Your task to perform on an android device: change the upload size in google photos Image 0: 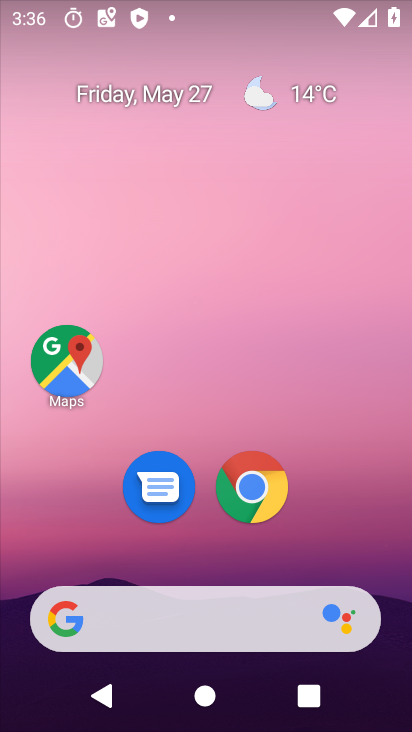
Step 0: drag from (344, 364) to (284, 10)
Your task to perform on an android device: change the upload size in google photos Image 1: 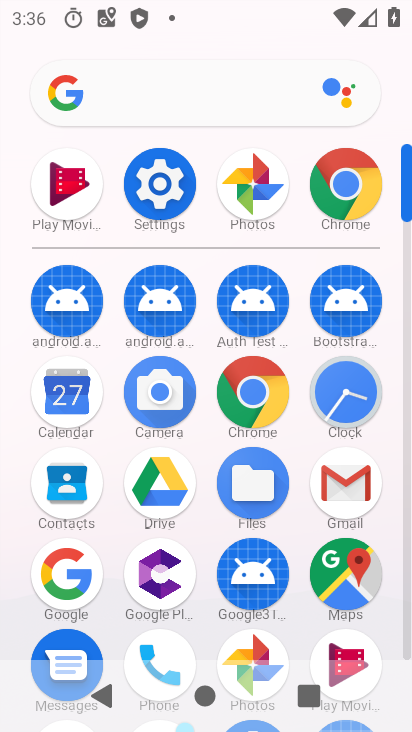
Step 1: click (241, 650)
Your task to perform on an android device: change the upload size in google photos Image 2: 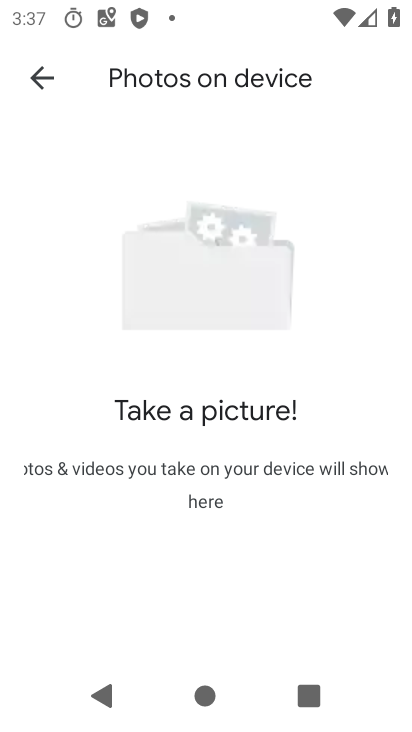
Step 2: click (46, 66)
Your task to perform on an android device: change the upload size in google photos Image 3: 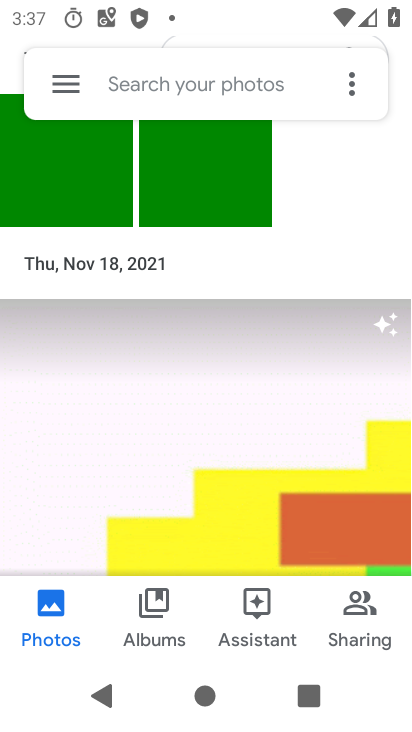
Step 3: click (64, 82)
Your task to perform on an android device: change the upload size in google photos Image 4: 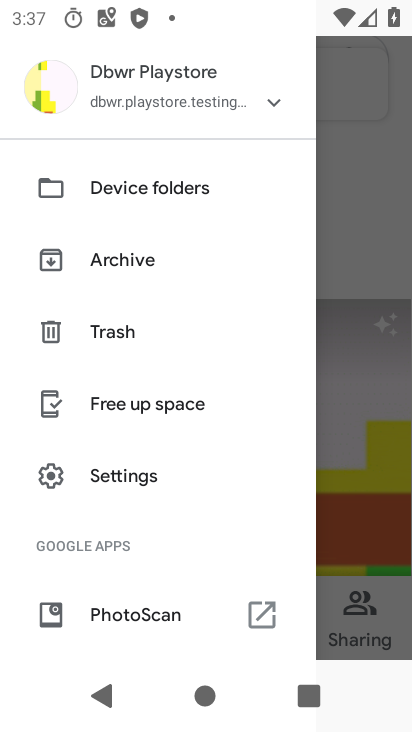
Step 4: click (130, 473)
Your task to perform on an android device: change the upload size in google photos Image 5: 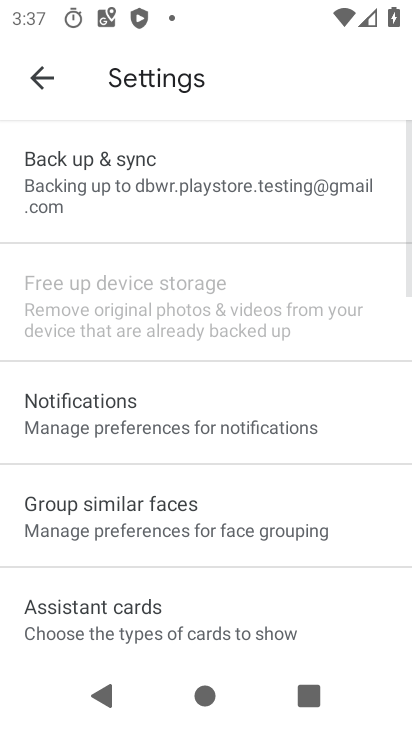
Step 5: click (168, 195)
Your task to perform on an android device: change the upload size in google photos Image 6: 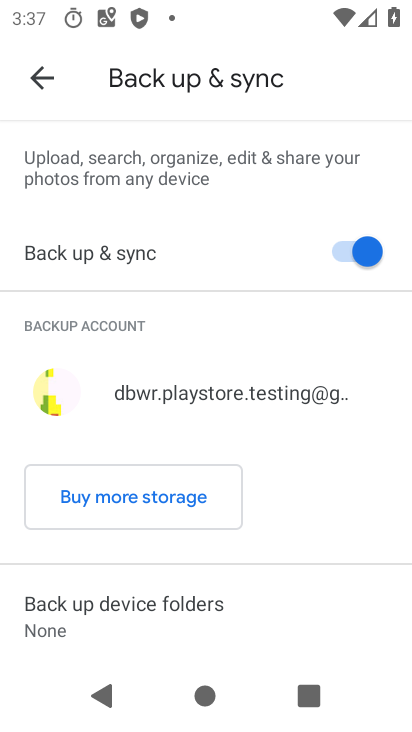
Step 6: drag from (206, 578) to (226, 34)
Your task to perform on an android device: change the upload size in google photos Image 7: 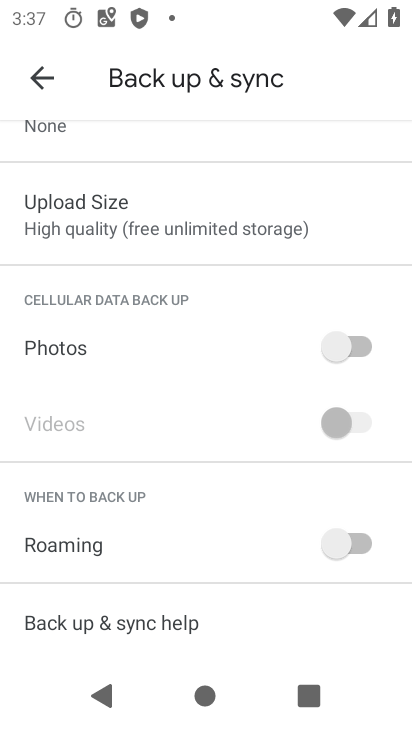
Step 7: click (154, 244)
Your task to perform on an android device: change the upload size in google photos Image 8: 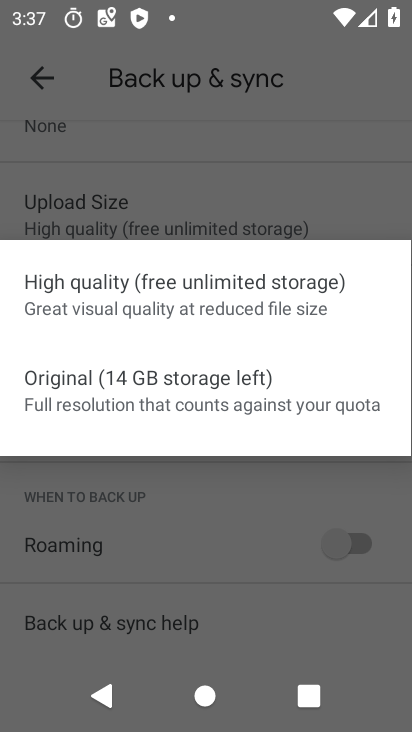
Step 8: click (152, 379)
Your task to perform on an android device: change the upload size in google photos Image 9: 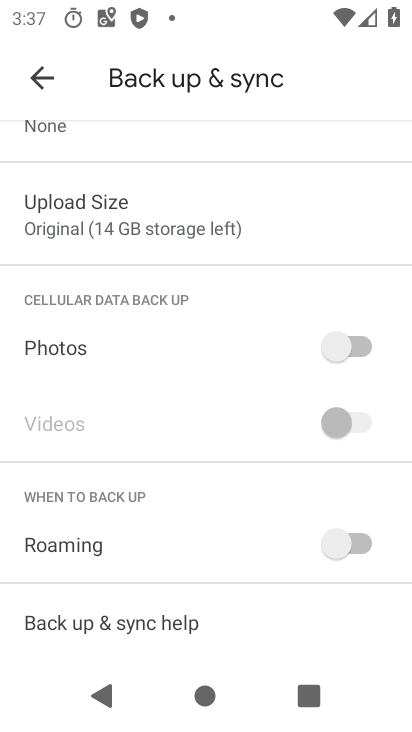
Step 9: task complete